Your task to perform on an android device: toggle priority inbox in the gmail app Image 0: 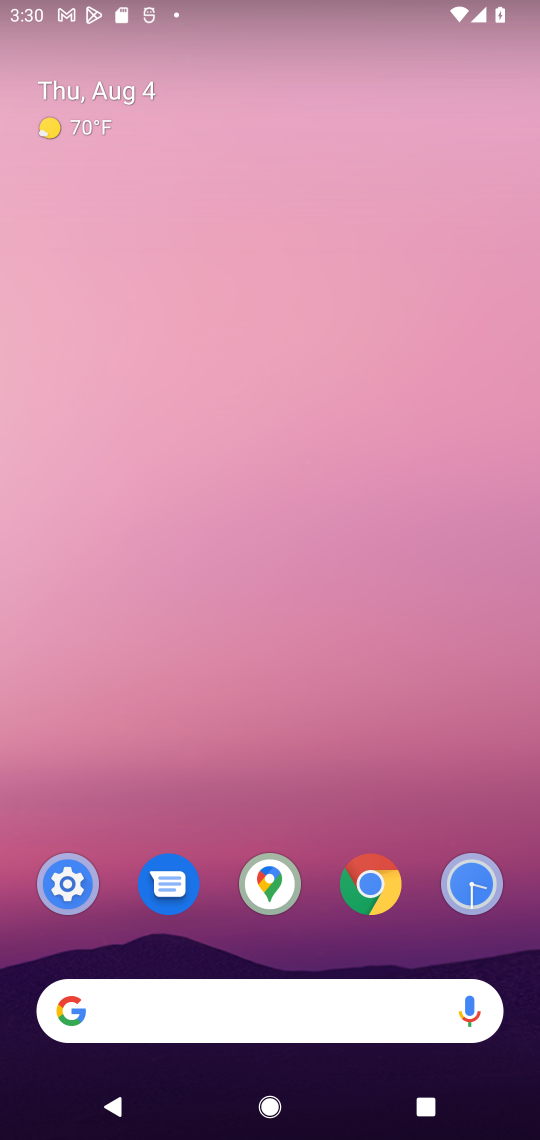
Step 0: drag from (319, 965) to (286, 102)
Your task to perform on an android device: toggle priority inbox in the gmail app Image 1: 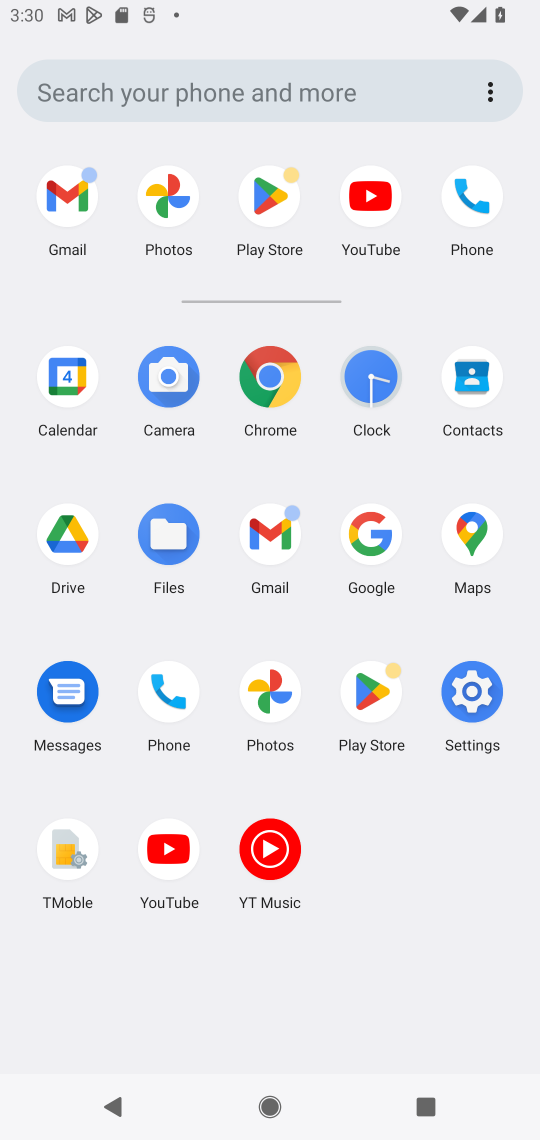
Step 1: click (254, 540)
Your task to perform on an android device: toggle priority inbox in the gmail app Image 2: 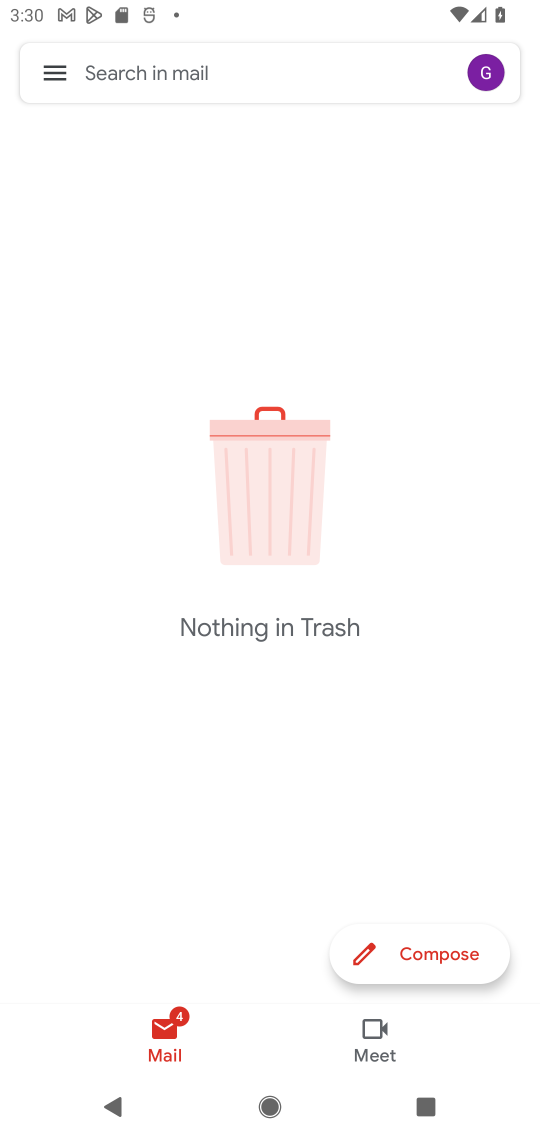
Step 2: task complete